Your task to perform on an android device: Do I have any events today? Image 0: 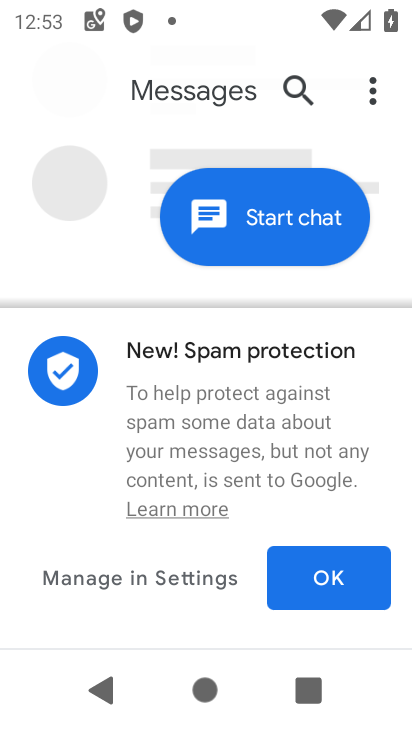
Step 0: press home button
Your task to perform on an android device: Do I have any events today? Image 1: 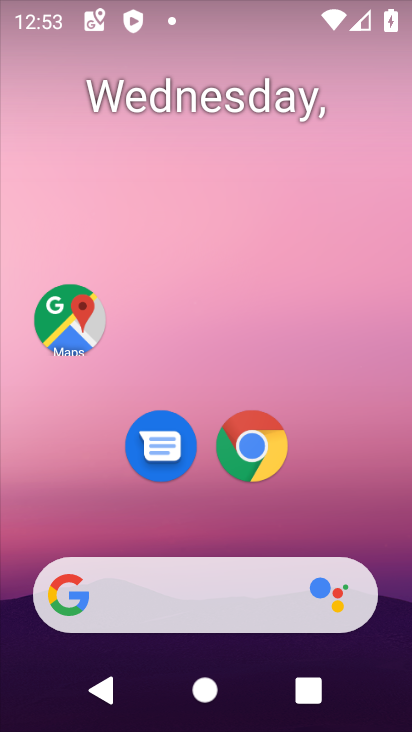
Step 1: drag from (218, 523) to (232, 99)
Your task to perform on an android device: Do I have any events today? Image 2: 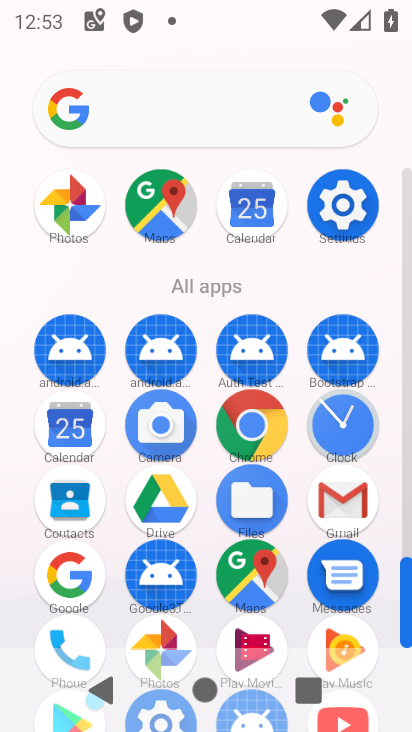
Step 2: click (262, 214)
Your task to perform on an android device: Do I have any events today? Image 3: 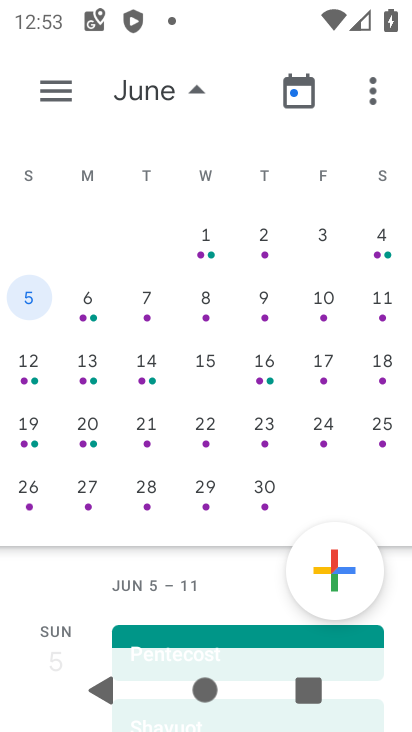
Step 3: drag from (56, 379) to (398, 377)
Your task to perform on an android device: Do I have any events today? Image 4: 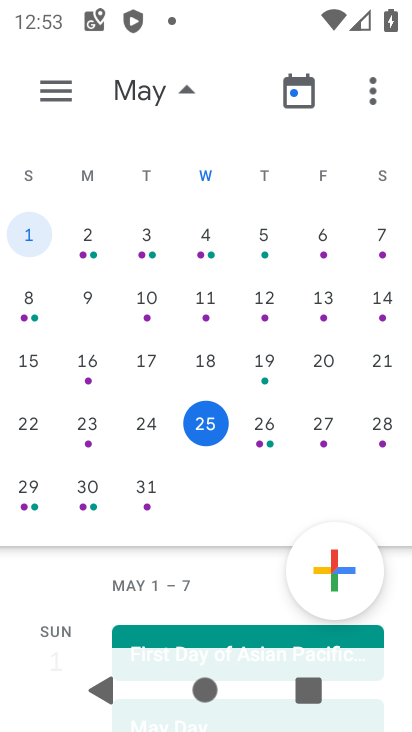
Step 4: click (210, 419)
Your task to perform on an android device: Do I have any events today? Image 5: 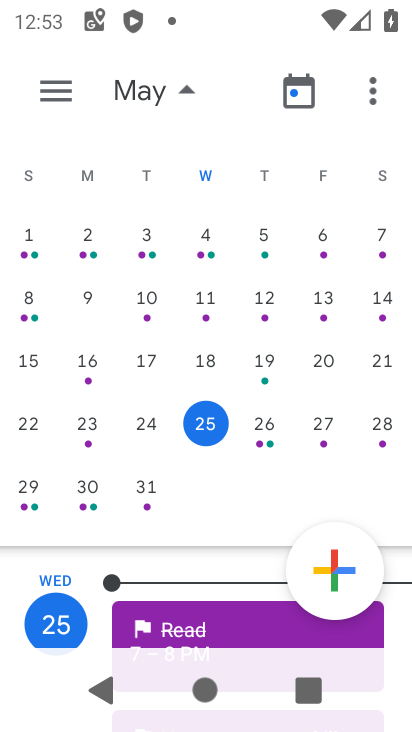
Step 5: task complete